Your task to perform on an android device: turn off translation in the chrome app Image 0: 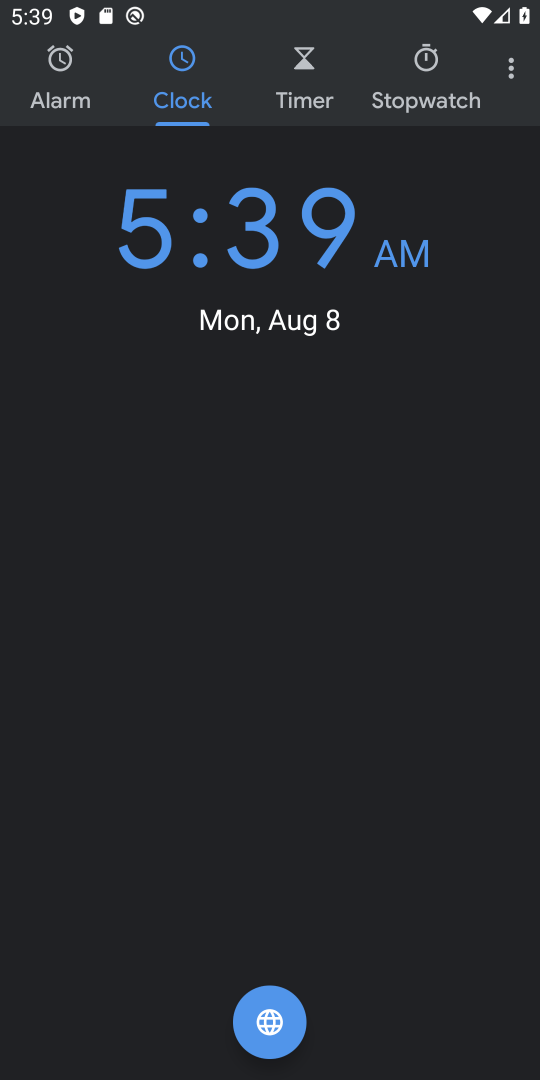
Step 0: press home button
Your task to perform on an android device: turn off translation in the chrome app Image 1: 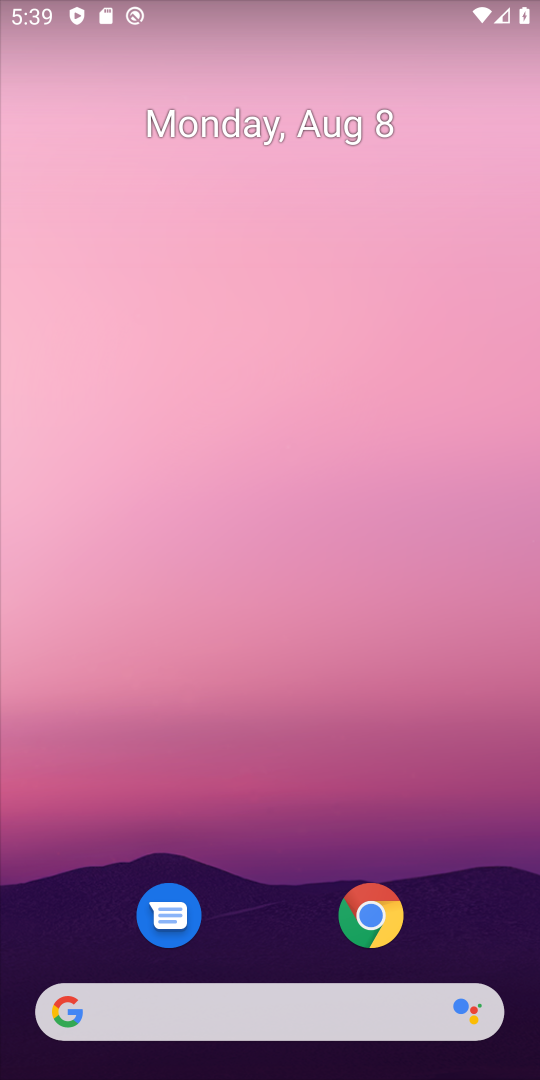
Step 1: click (355, 916)
Your task to perform on an android device: turn off translation in the chrome app Image 2: 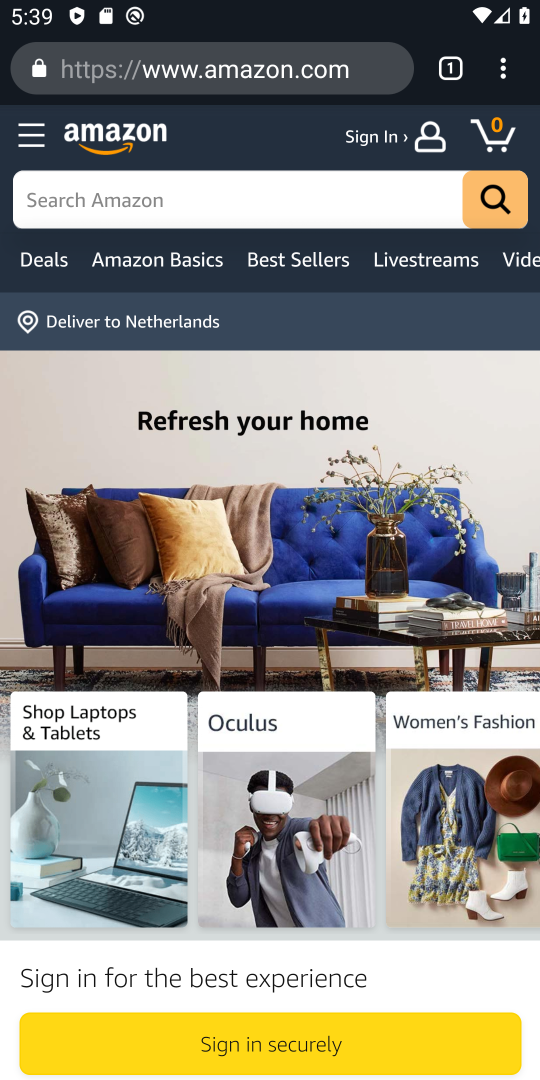
Step 2: click (508, 74)
Your task to perform on an android device: turn off translation in the chrome app Image 3: 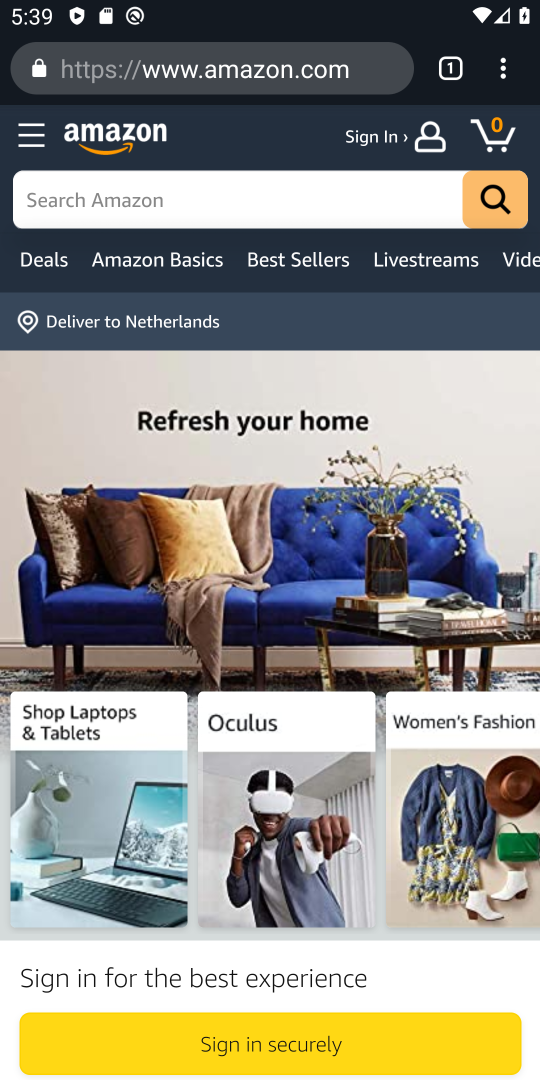
Step 3: click (497, 75)
Your task to perform on an android device: turn off translation in the chrome app Image 4: 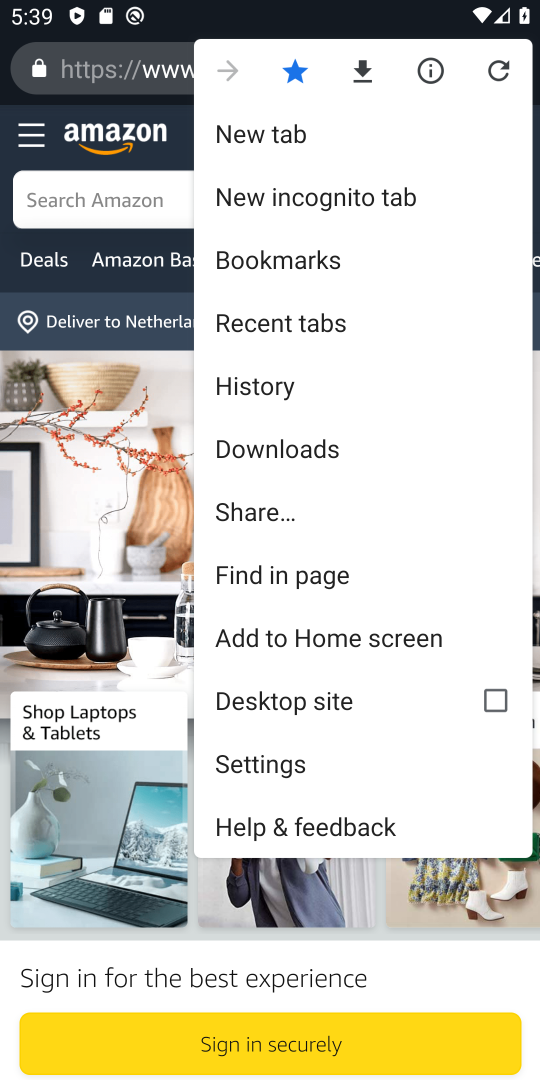
Step 4: click (269, 761)
Your task to perform on an android device: turn off translation in the chrome app Image 5: 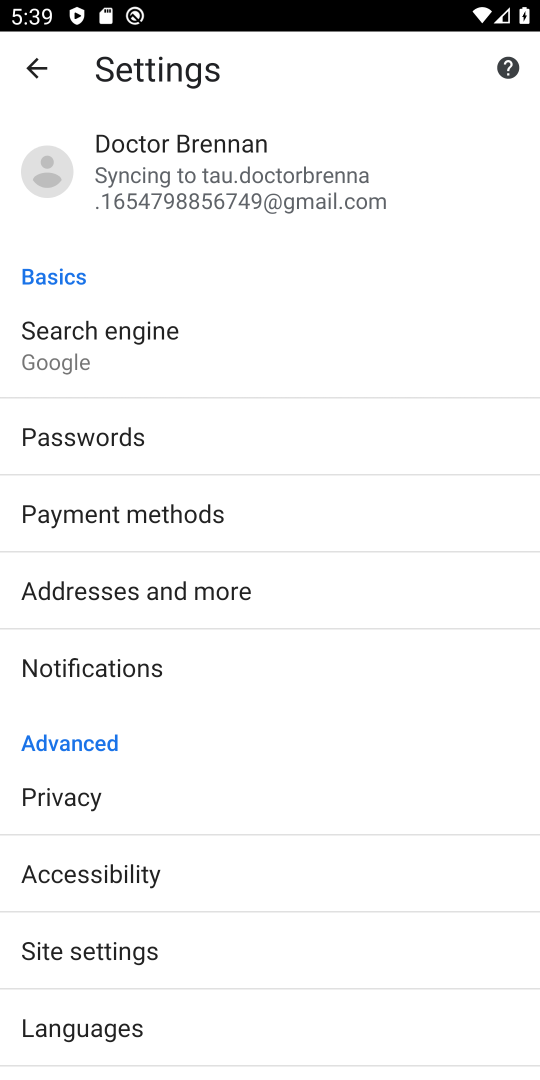
Step 5: drag from (265, 948) to (265, 653)
Your task to perform on an android device: turn off translation in the chrome app Image 6: 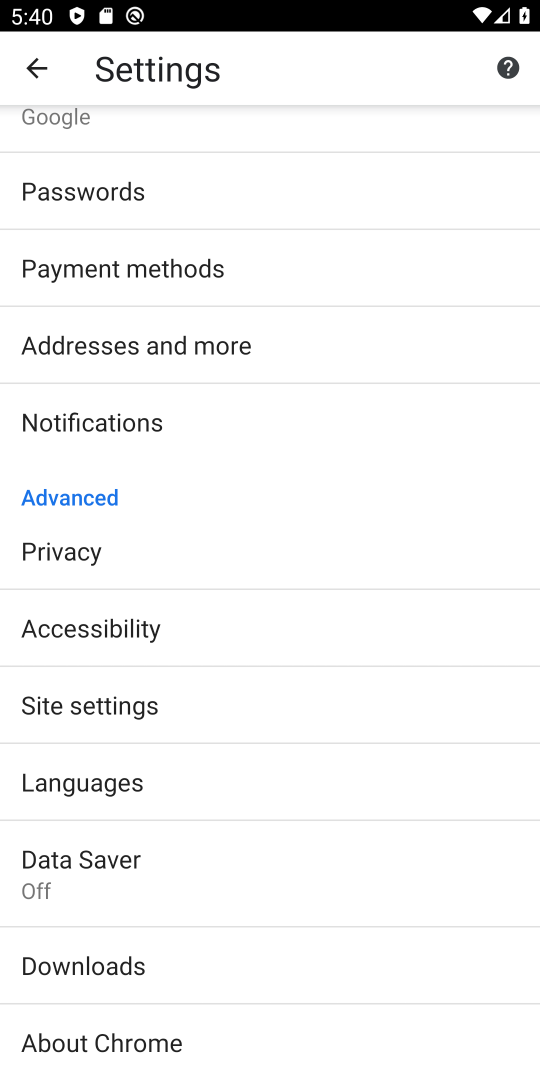
Step 6: click (97, 781)
Your task to perform on an android device: turn off translation in the chrome app Image 7: 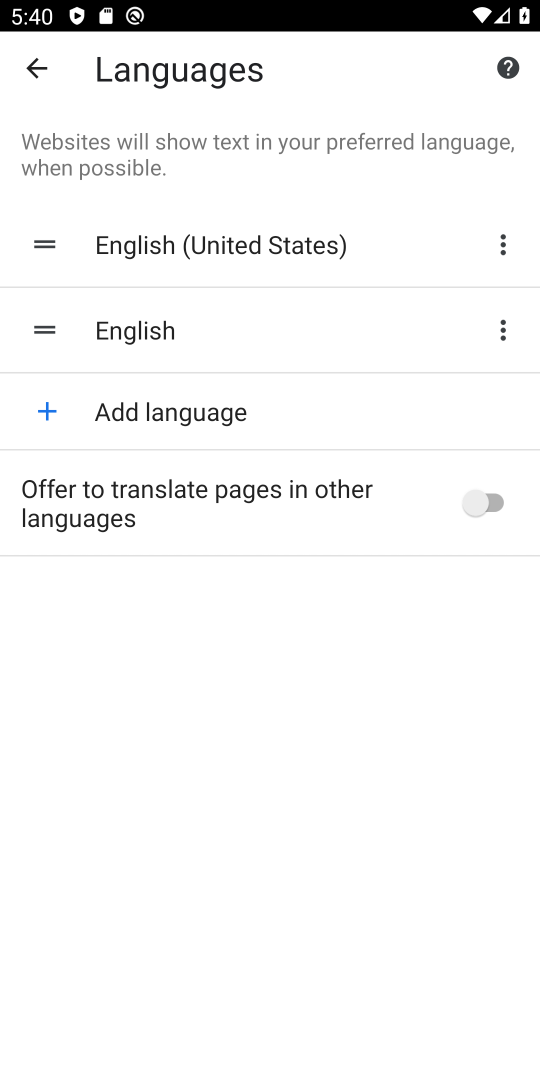
Step 7: task complete